Your task to perform on an android device: Search for "alienware aurora" on amazon.com, select the first entry, add it to the cart, then select checkout. Image 0: 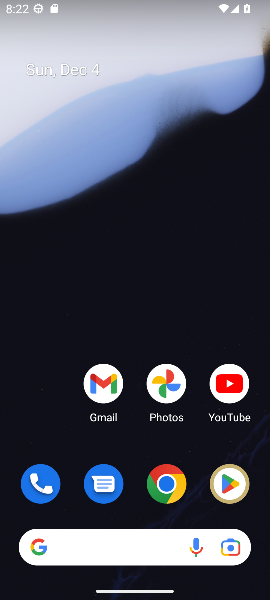
Step 0: click (168, 494)
Your task to perform on an android device: Search for "alienware aurora" on amazon.com, select the first entry, add it to the cart, then select checkout. Image 1: 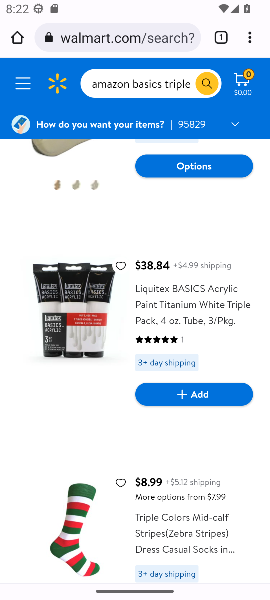
Step 1: click (97, 36)
Your task to perform on an android device: Search for "alienware aurora" on amazon.com, select the first entry, add it to the cart, then select checkout. Image 2: 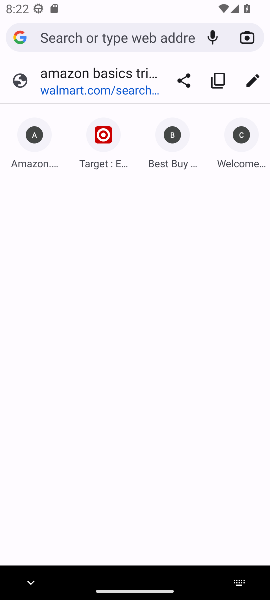
Step 2: click (29, 164)
Your task to perform on an android device: Search for "alienware aurora" on amazon.com, select the first entry, add it to the cart, then select checkout. Image 3: 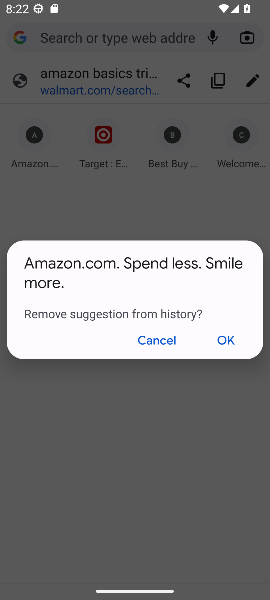
Step 3: click (145, 343)
Your task to perform on an android device: Search for "alienware aurora" on amazon.com, select the first entry, add it to the cart, then select checkout. Image 4: 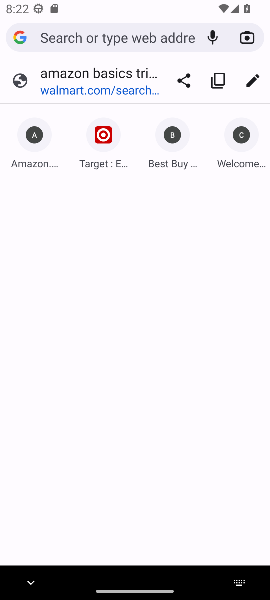
Step 4: click (24, 153)
Your task to perform on an android device: Search for "alienware aurora" on amazon.com, select the first entry, add it to the cart, then select checkout. Image 5: 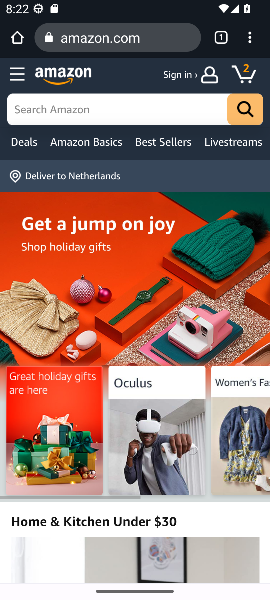
Step 5: click (60, 103)
Your task to perform on an android device: Search for "alienware aurora" on amazon.com, select the first entry, add it to the cart, then select checkout. Image 6: 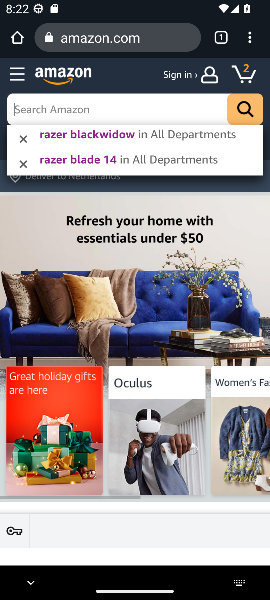
Step 6: type "alienware aurora"
Your task to perform on an android device: Search for "alienware aurora" on amazon.com, select the first entry, add it to the cart, then select checkout. Image 7: 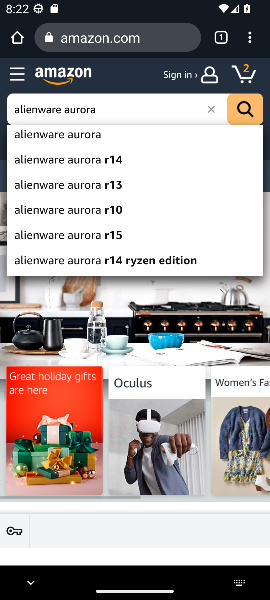
Step 7: click (79, 134)
Your task to perform on an android device: Search for "alienware aurora" on amazon.com, select the first entry, add it to the cart, then select checkout. Image 8: 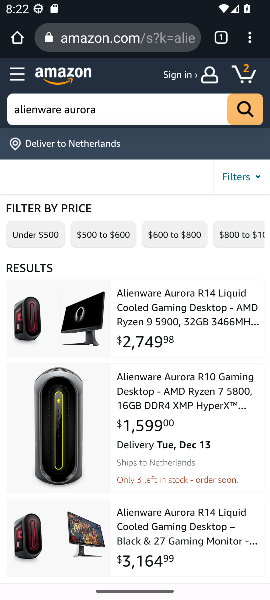
Step 8: click (168, 314)
Your task to perform on an android device: Search for "alienware aurora" on amazon.com, select the first entry, add it to the cart, then select checkout. Image 9: 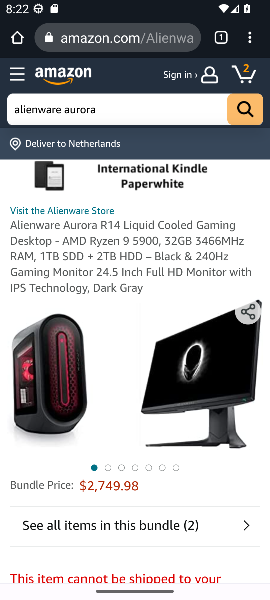
Step 9: task complete